Your task to perform on an android device: What's the weather going to be tomorrow? Image 0: 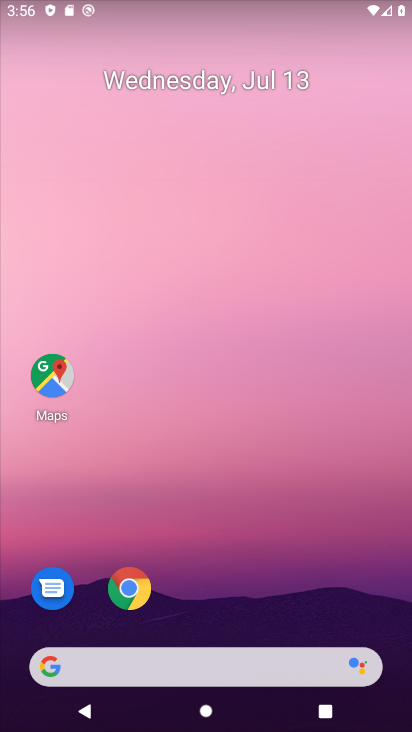
Step 0: click (83, 668)
Your task to perform on an android device: What's the weather going to be tomorrow? Image 1: 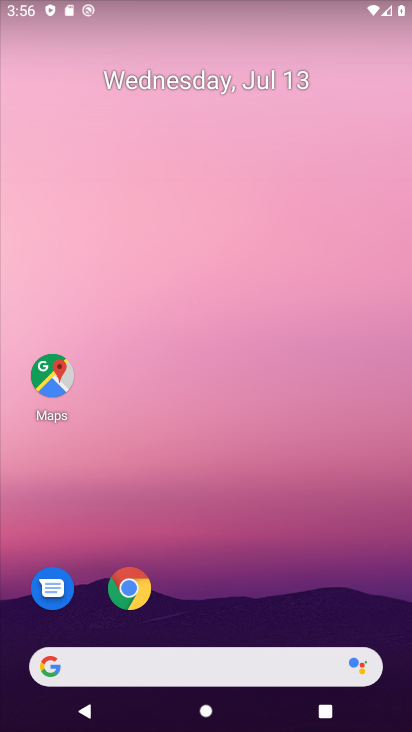
Step 1: click (87, 664)
Your task to perform on an android device: What's the weather going to be tomorrow? Image 2: 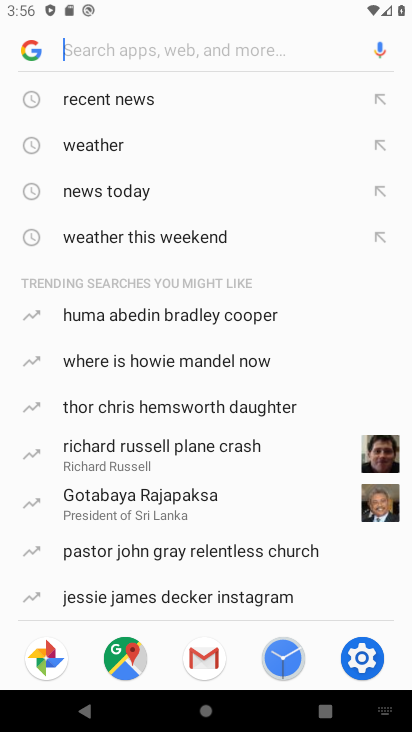
Step 2: type "What's the weather going to be tomorrow?"
Your task to perform on an android device: What's the weather going to be tomorrow? Image 3: 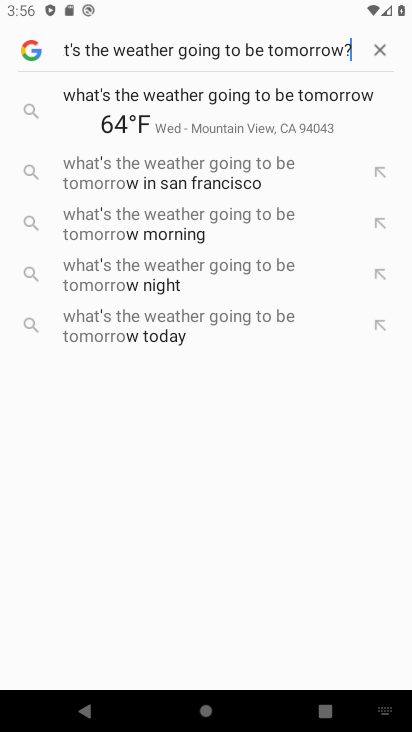
Step 3: type ""
Your task to perform on an android device: What's the weather going to be tomorrow? Image 4: 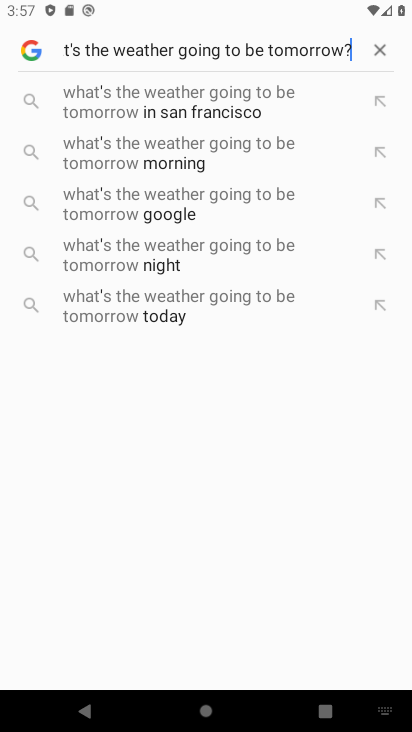
Step 4: task complete